Your task to perform on an android device: turn smart compose on in the gmail app Image 0: 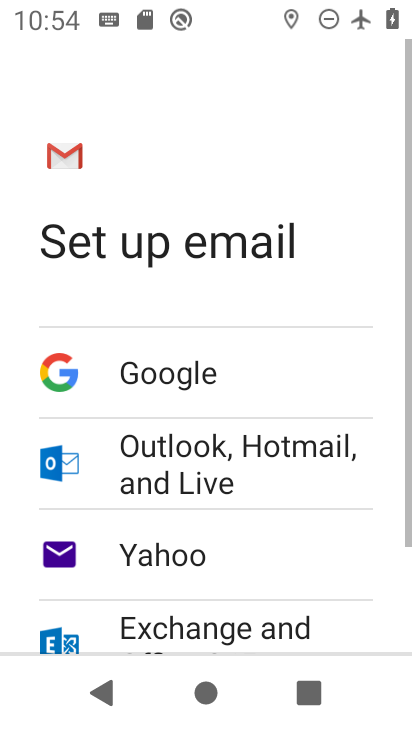
Step 0: press home button
Your task to perform on an android device: turn smart compose on in the gmail app Image 1: 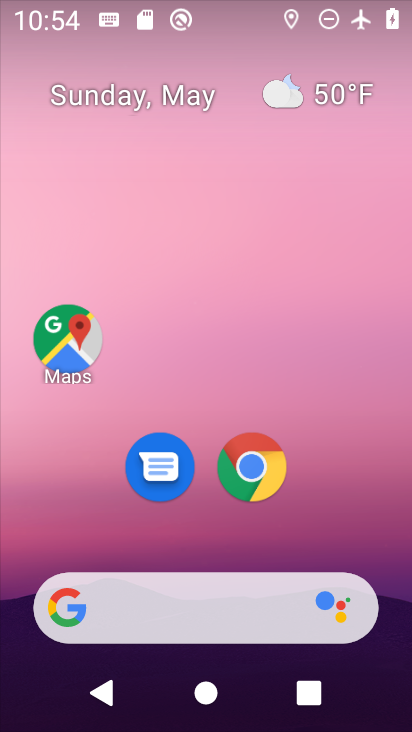
Step 1: drag from (178, 537) to (170, 231)
Your task to perform on an android device: turn smart compose on in the gmail app Image 2: 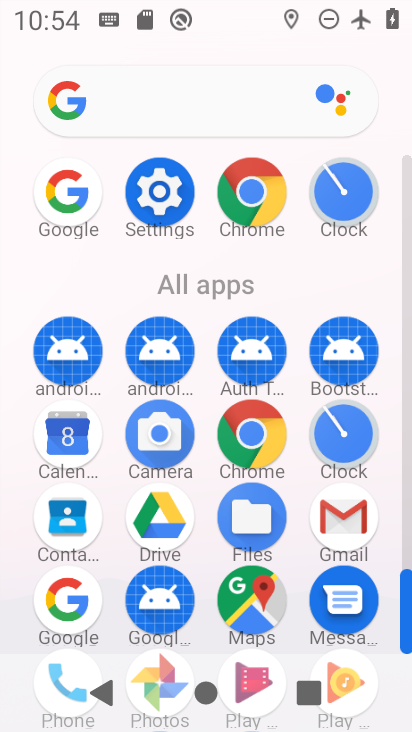
Step 2: click (312, 502)
Your task to perform on an android device: turn smart compose on in the gmail app Image 3: 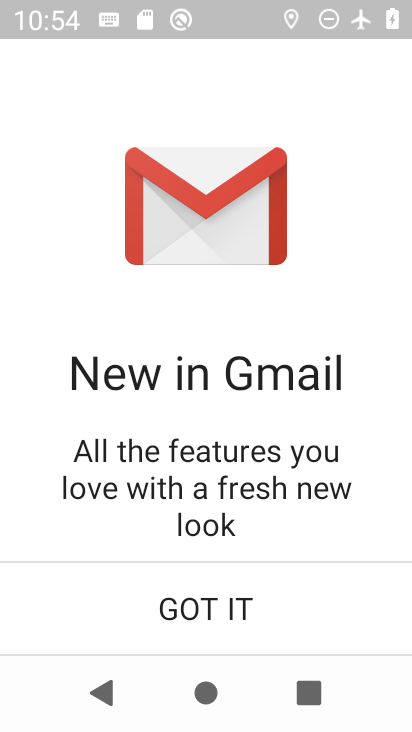
Step 3: click (269, 572)
Your task to perform on an android device: turn smart compose on in the gmail app Image 4: 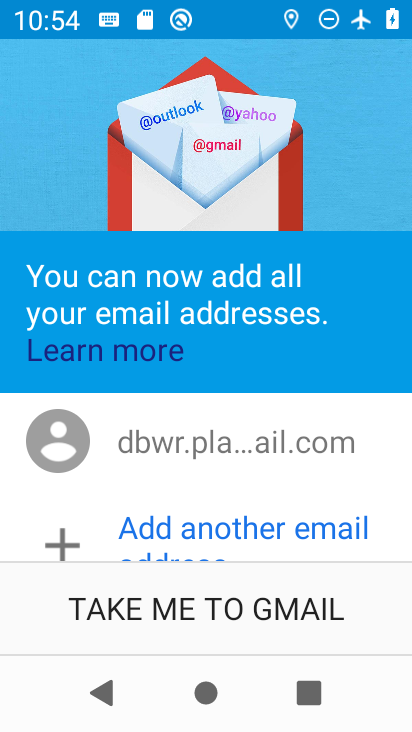
Step 4: click (249, 578)
Your task to perform on an android device: turn smart compose on in the gmail app Image 5: 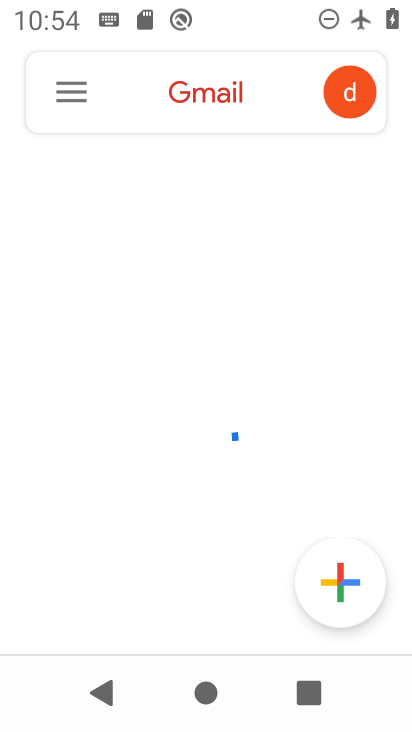
Step 5: click (62, 109)
Your task to perform on an android device: turn smart compose on in the gmail app Image 6: 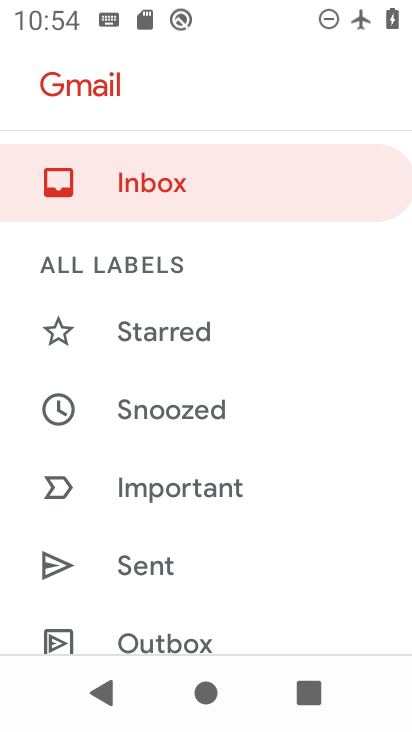
Step 6: click (153, 423)
Your task to perform on an android device: turn smart compose on in the gmail app Image 7: 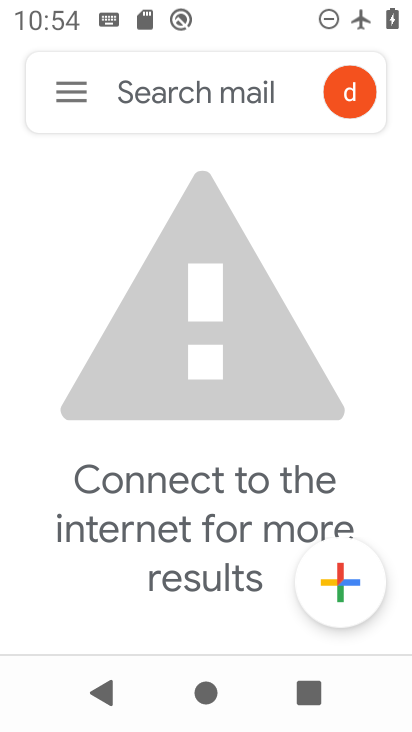
Step 7: click (59, 102)
Your task to perform on an android device: turn smart compose on in the gmail app Image 8: 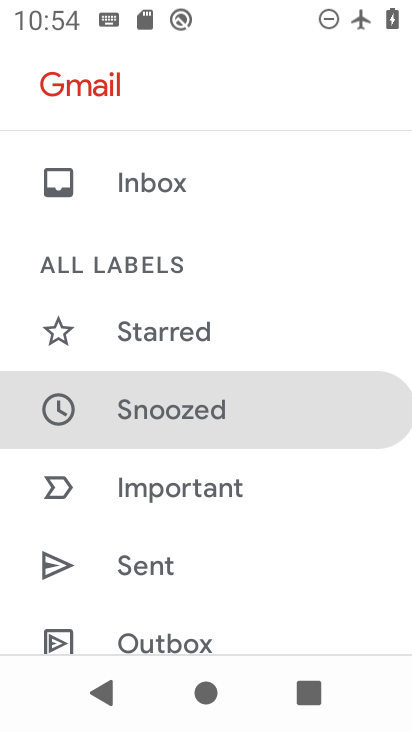
Step 8: drag from (235, 579) to (200, 56)
Your task to perform on an android device: turn smart compose on in the gmail app Image 9: 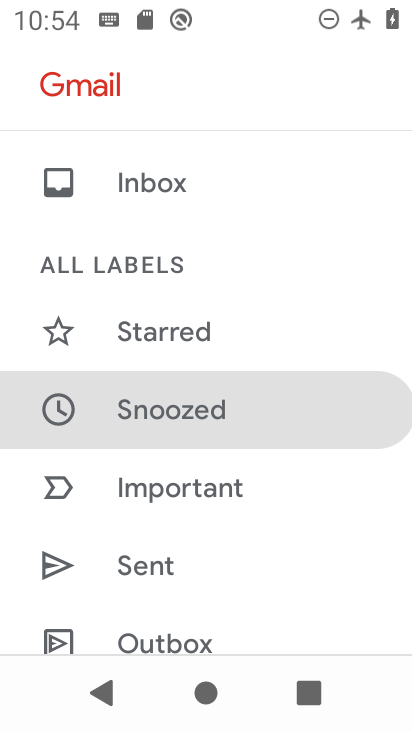
Step 9: click (213, 168)
Your task to perform on an android device: turn smart compose on in the gmail app Image 10: 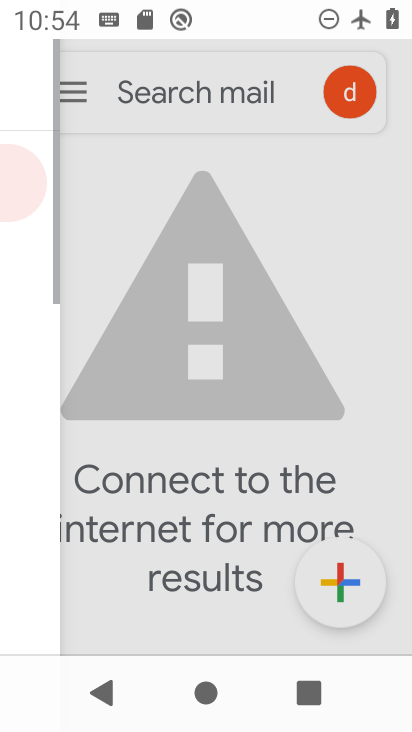
Step 10: drag from (227, 543) to (214, 207)
Your task to perform on an android device: turn smart compose on in the gmail app Image 11: 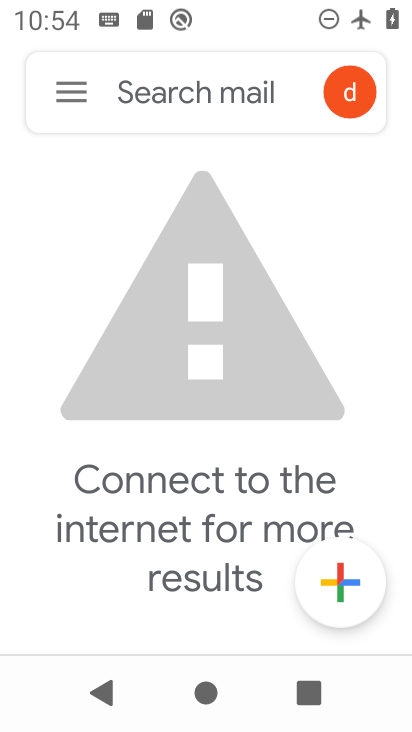
Step 11: click (77, 100)
Your task to perform on an android device: turn smart compose on in the gmail app Image 12: 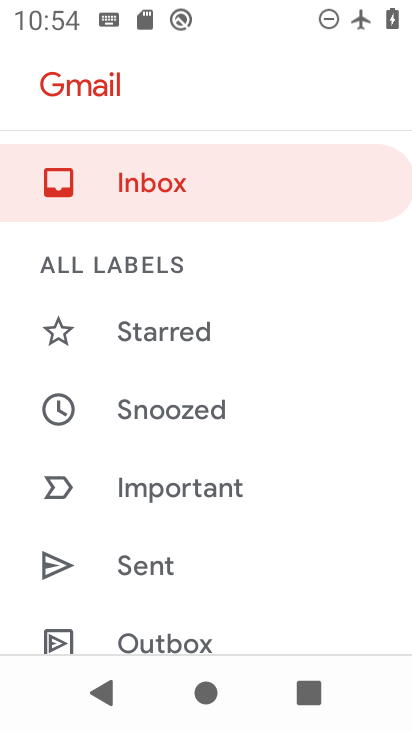
Step 12: drag from (232, 547) to (256, 139)
Your task to perform on an android device: turn smart compose on in the gmail app Image 13: 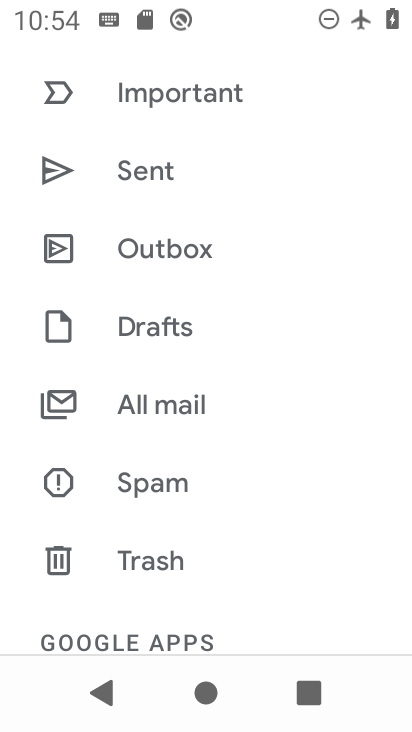
Step 13: drag from (196, 559) to (197, 277)
Your task to perform on an android device: turn smart compose on in the gmail app Image 14: 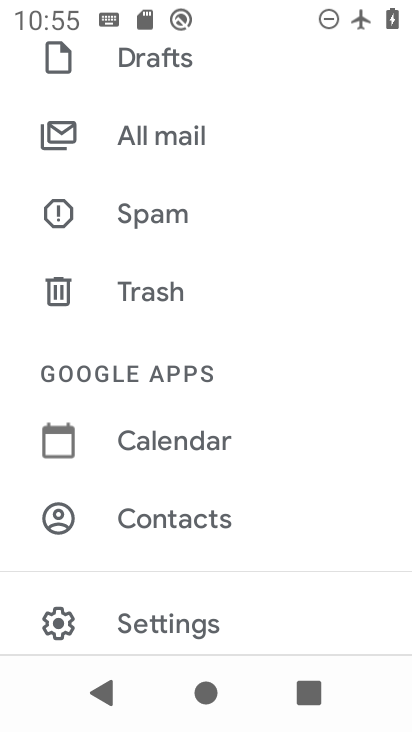
Step 14: drag from (214, 548) to (216, 337)
Your task to perform on an android device: turn smart compose on in the gmail app Image 15: 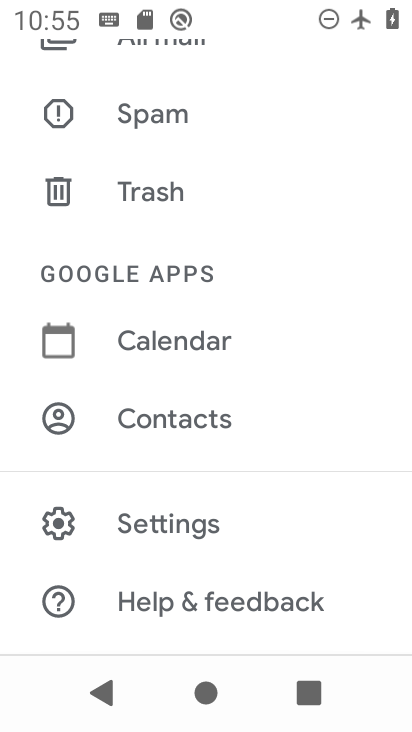
Step 15: click (190, 511)
Your task to perform on an android device: turn smart compose on in the gmail app Image 16: 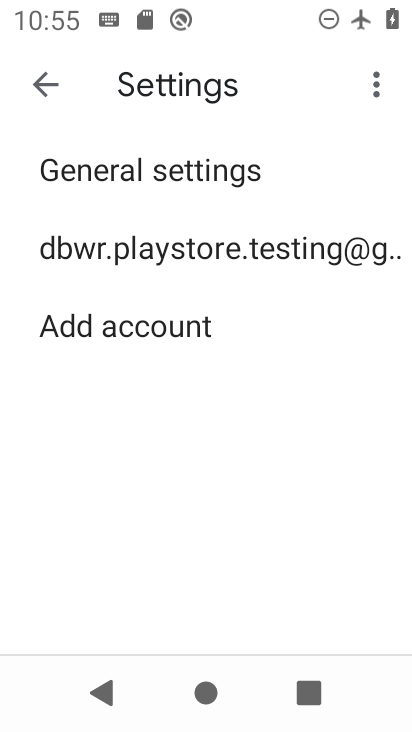
Step 16: click (201, 250)
Your task to perform on an android device: turn smart compose on in the gmail app Image 17: 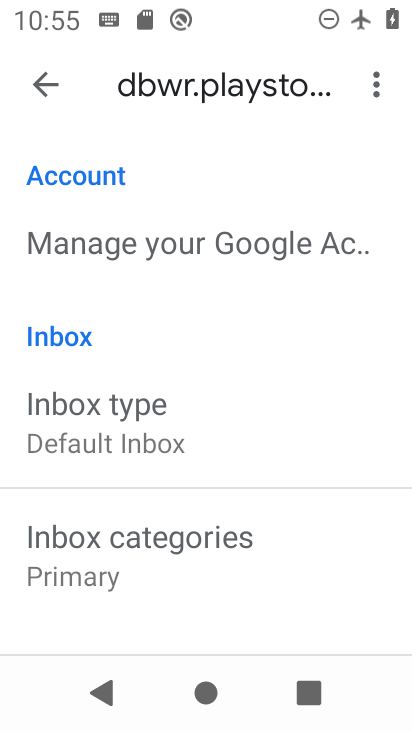
Step 17: task complete